Your task to perform on an android device: see creations saved in the google photos Image 0: 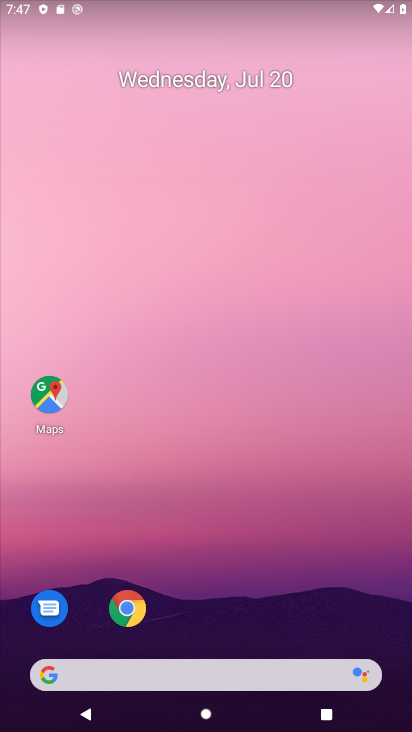
Step 0: drag from (215, 639) to (241, 90)
Your task to perform on an android device: see creations saved in the google photos Image 1: 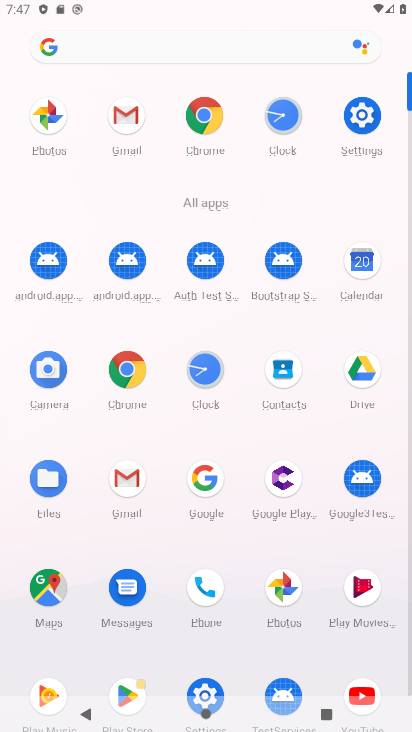
Step 1: click (280, 597)
Your task to perform on an android device: see creations saved in the google photos Image 2: 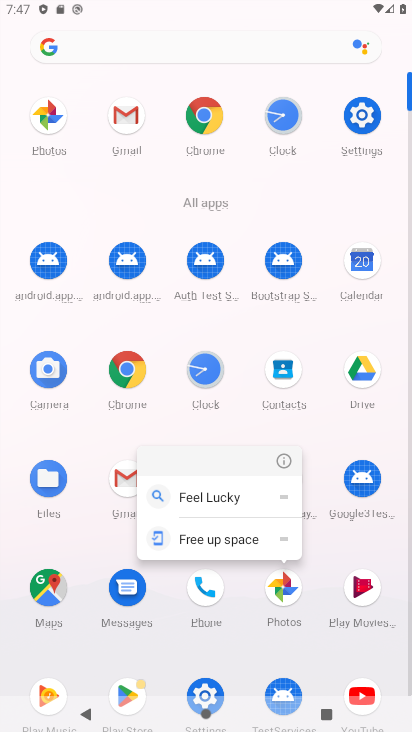
Step 2: click (280, 597)
Your task to perform on an android device: see creations saved in the google photos Image 3: 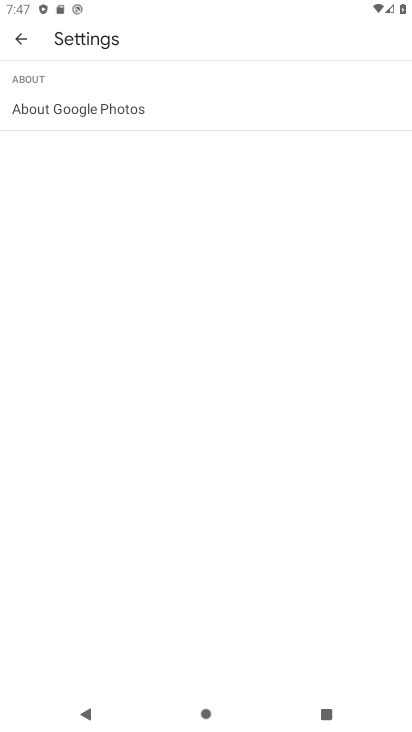
Step 3: click (19, 38)
Your task to perform on an android device: see creations saved in the google photos Image 4: 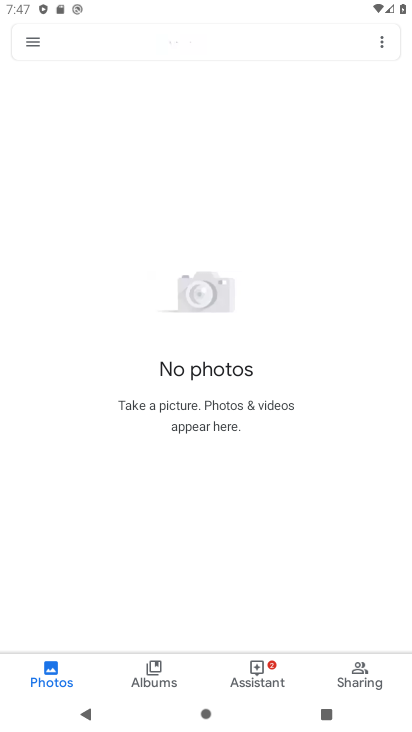
Step 4: click (154, 40)
Your task to perform on an android device: see creations saved in the google photos Image 5: 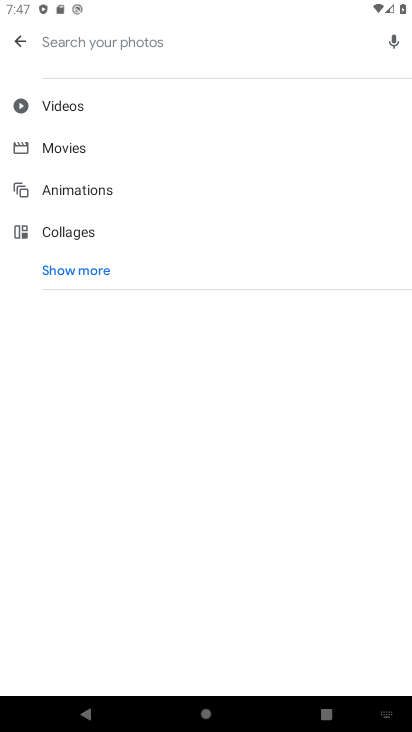
Step 5: type "creations"
Your task to perform on an android device: see creations saved in the google photos Image 6: 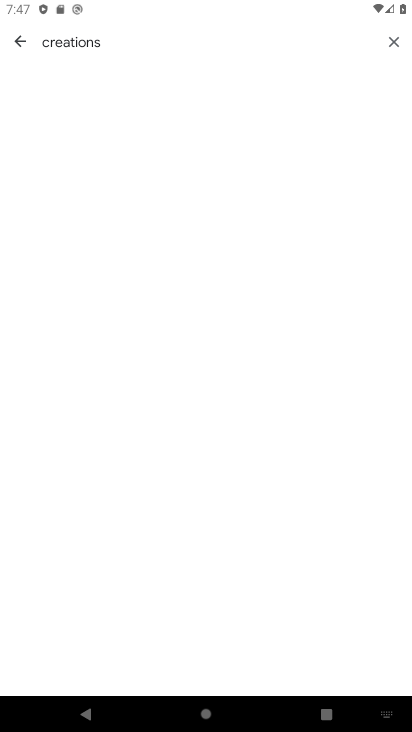
Step 6: click (105, 113)
Your task to perform on an android device: see creations saved in the google photos Image 7: 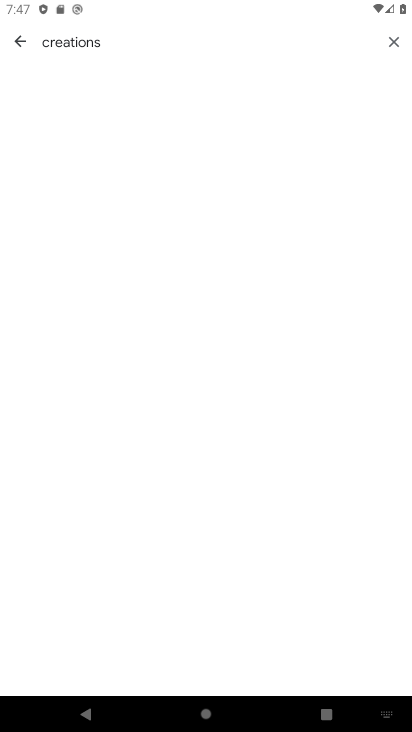
Step 7: click (149, 162)
Your task to perform on an android device: see creations saved in the google photos Image 8: 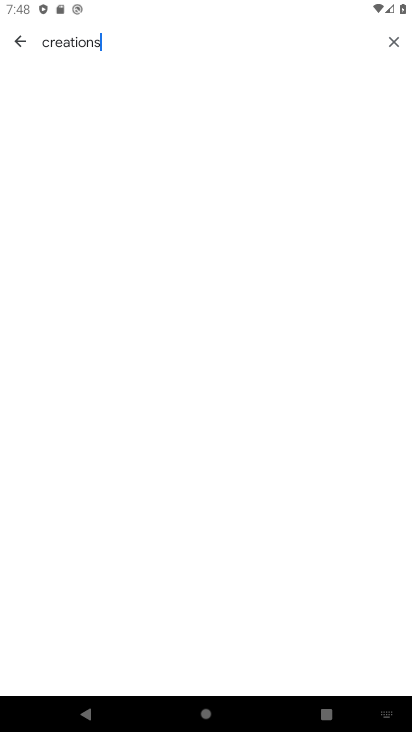
Step 8: task complete